Your task to perform on an android device: toggle location history Image 0: 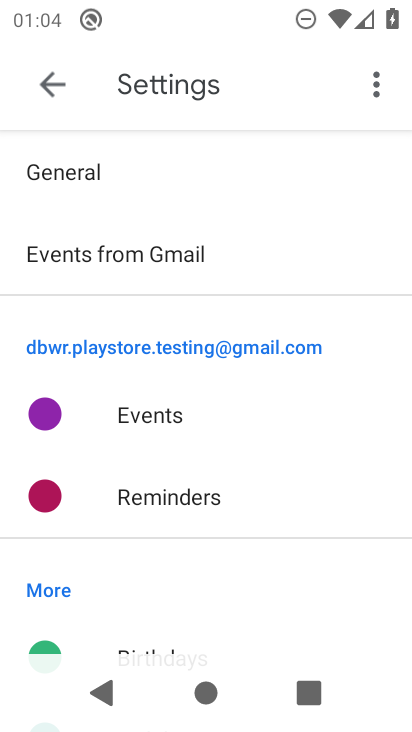
Step 0: press home button
Your task to perform on an android device: toggle location history Image 1: 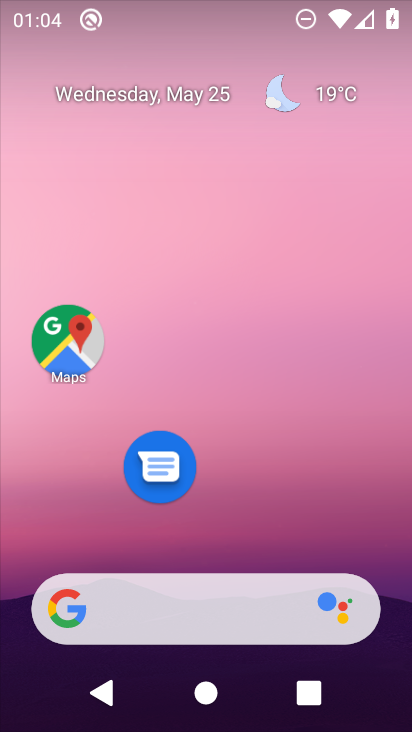
Step 1: drag from (205, 557) to (246, 63)
Your task to perform on an android device: toggle location history Image 2: 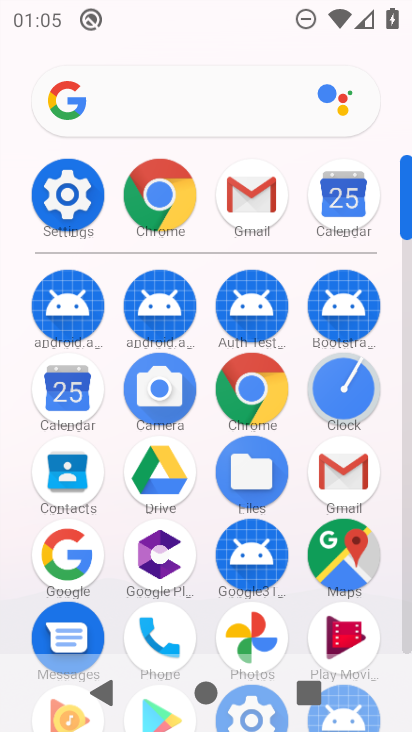
Step 2: click (83, 203)
Your task to perform on an android device: toggle location history Image 3: 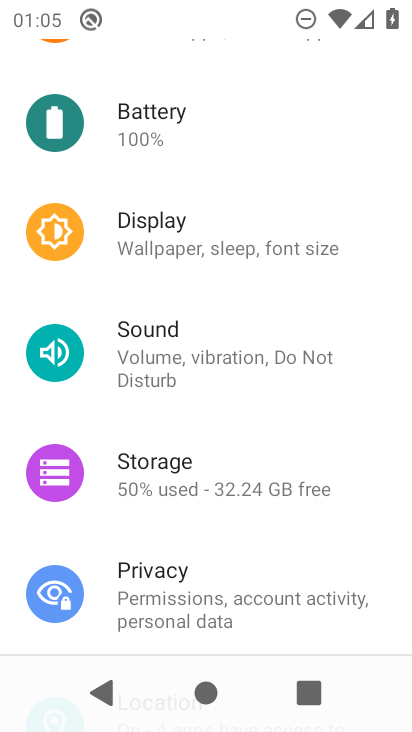
Step 3: drag from (220, 595) to (291, 136)
Your task to perform on an android device: toggle location history Image 4: 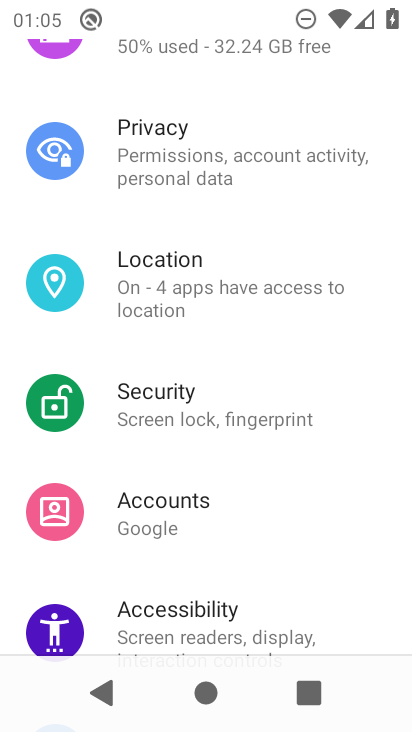
Step 4: click (188, 315)
Your task to perform on an android device: toggle location history Image 5: 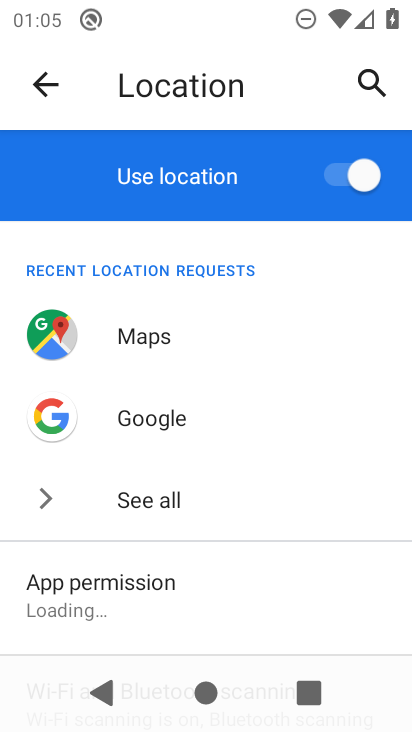
Step 5: drag from (224, 590) to (298, 271)
Your task to perform on an android device: toggle location history Image 6: 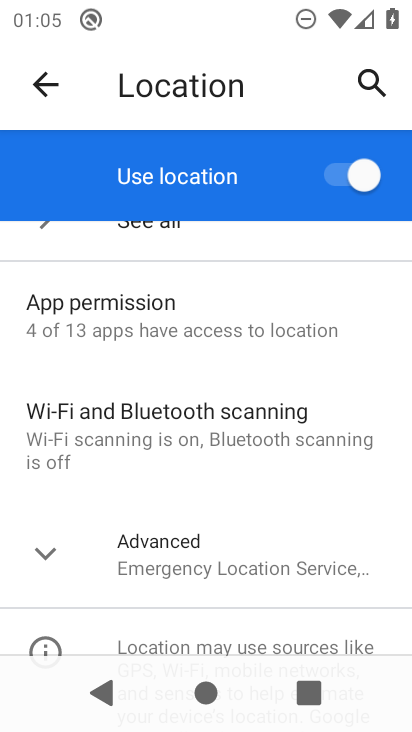
Step 6: drag from (188, 543) to (307, 292)
Your task to perform on an android device: toggle location history Image 7: 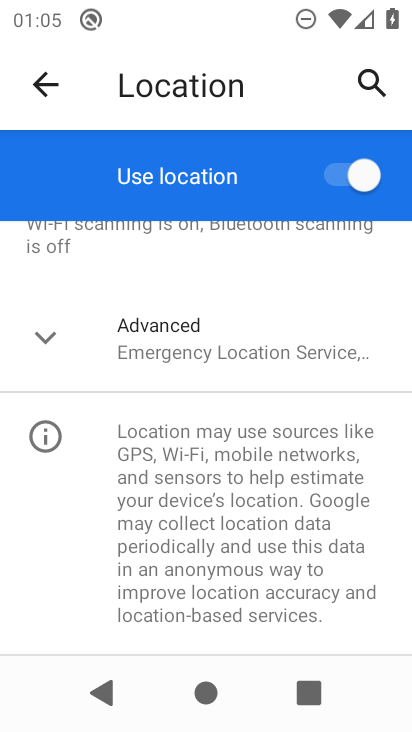
Step 7: click (193, 354)
Your task to perform on an android device: toggle location history Image 8: 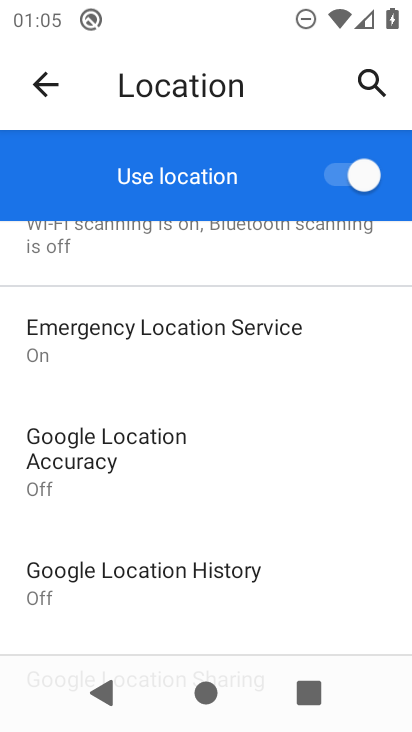
Step 8: drag from (250, 590) to (262, 506)
Your task to perform on an android device: toggle location history Image 9: 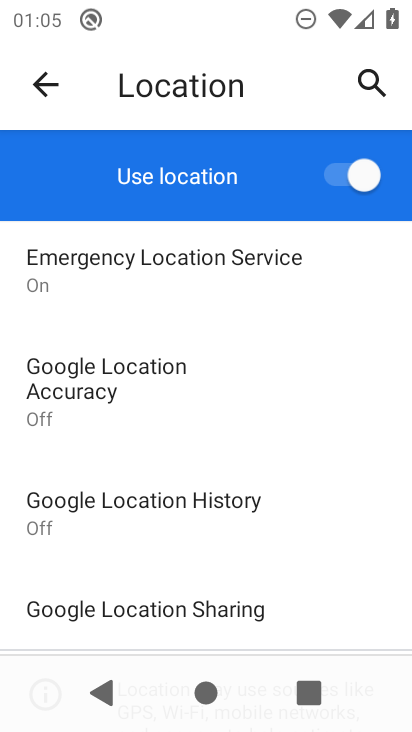
Step 9: click (140, 521)
Your task to perform on an android device: toggle location history Image 10: 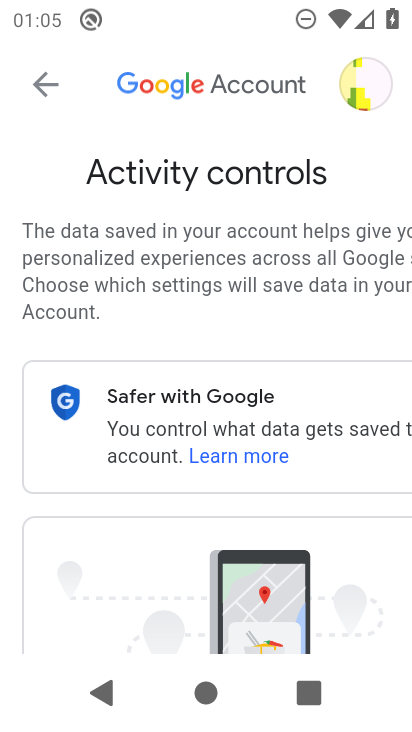
Step 10: drag from (225, 543) to (262, 269)
Your task to perform on an android device: toggle location history Image 11: 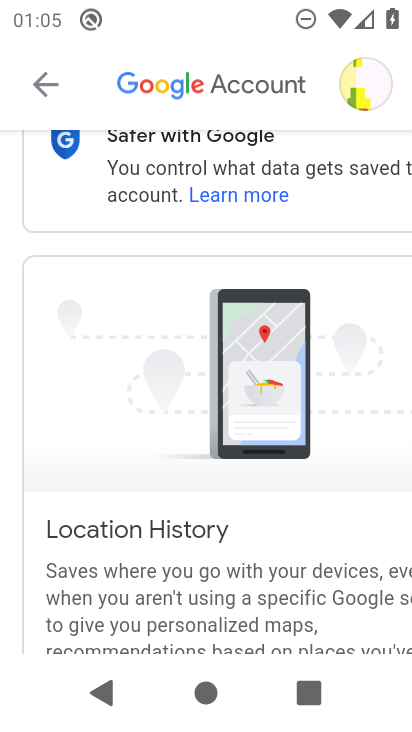
Step 11: drag from (253, 597) to (328, 213)
Your task to perform on an android device: toggle location history Image 12: 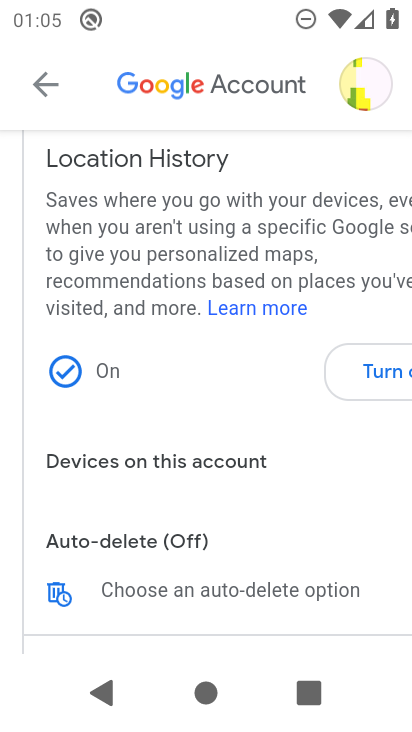
Step 12: click (359, 377)
Your task to perform on an android device: toggle location history Image 13: 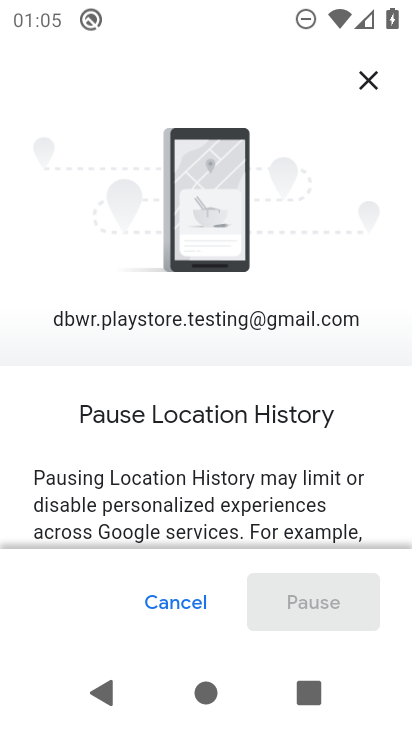
Step 13: drag from (245, 505) to (402, 53)
Your task to perform on an android device: toggle location history Image 14: 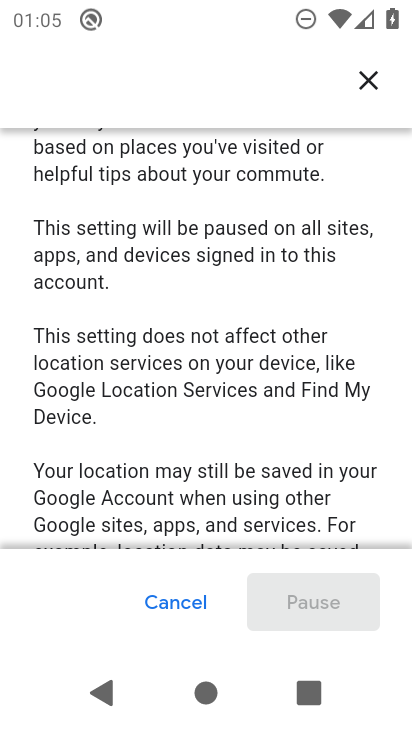
Step 14: drag from (269, 438) to (344, 72)
Your task to perform on an android device: toggle location history Image 15: 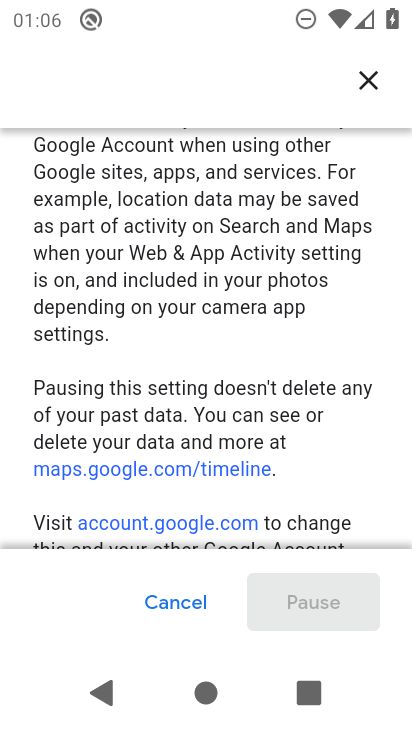
Step 15: drag from (250, 502) to (288, 89)
Your task to perform on an android device: toggle location history Image 16: 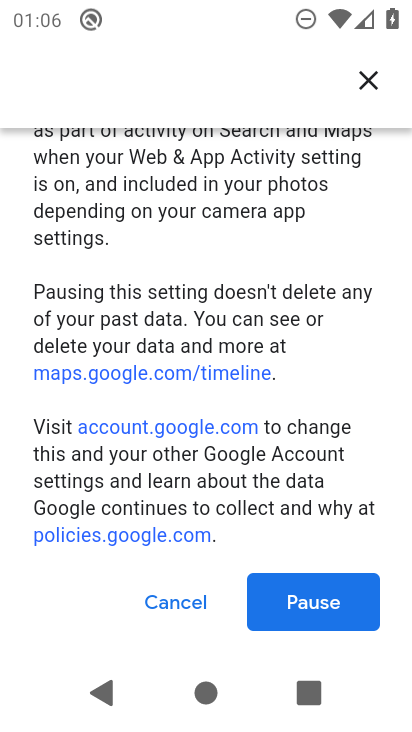
Step 16: click (301, 604)
Your task to perform on an android device: toggle location history Image 17: 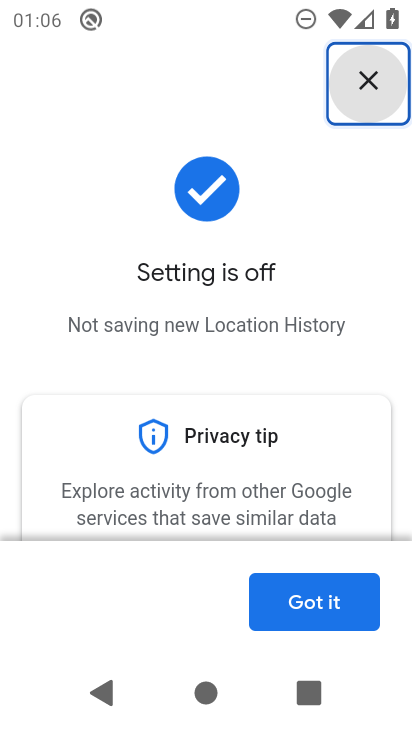
Step 17: click (289, 605)
Your task to perform on an android device: toggle location history Image 18: 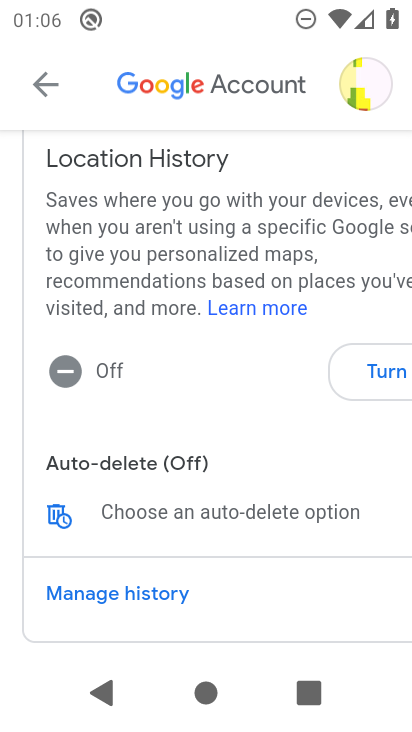
Step 18: task complete